Your task to perform on an android device: Open sound settings Image 0: 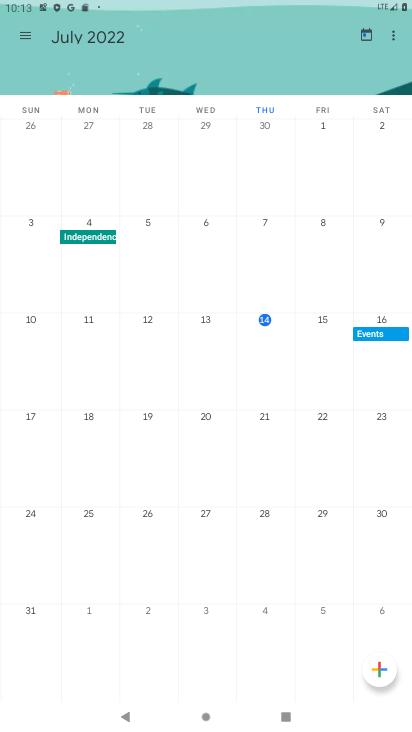
Step 0: press home button
Your task to perform on an android device: Open sound settings Image 1: 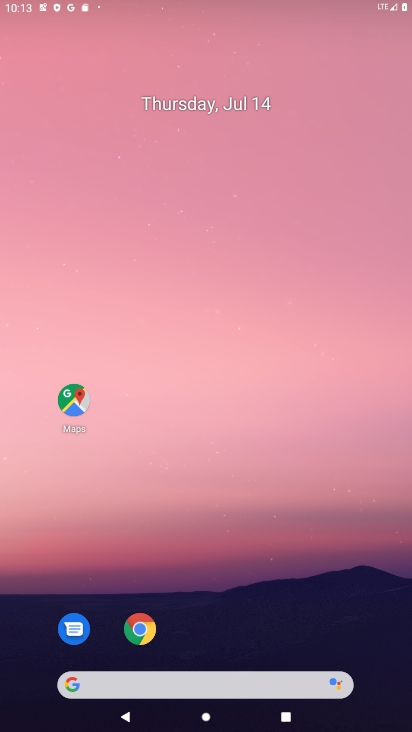
Step 1: drag from (22, 663) to (300, 124)
Your task to perform on an android device: Open sound settings Image 2: 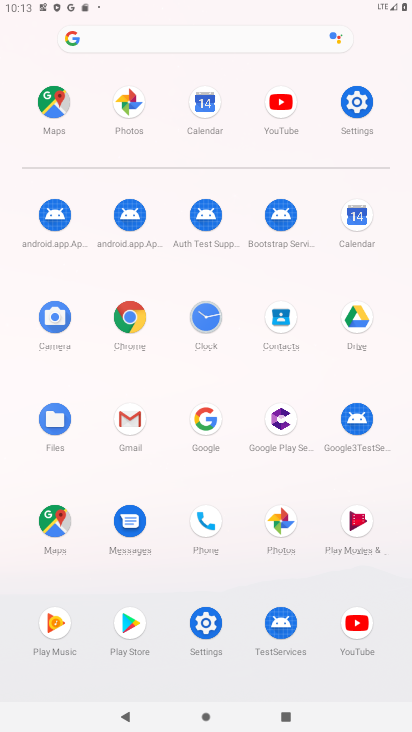
Step 2: click (357, 104)
Your task to perform on an android device: Open sound settings Image 3: 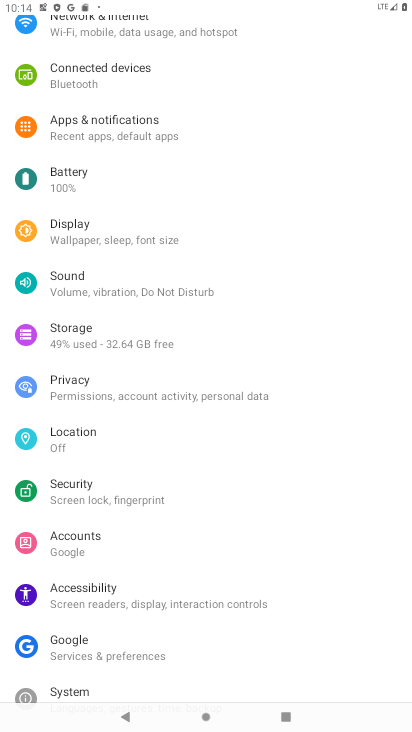
Step 3: click (83, 280)
Your task to perform on an android device: Open sound settings Image 4: 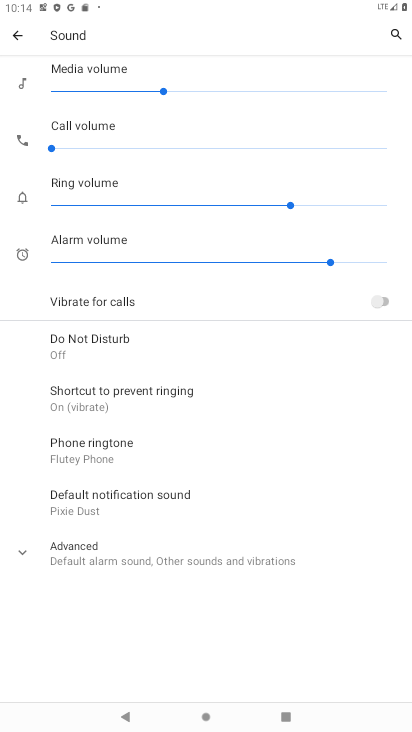
Step 4: task complete